Your task to perform on an android device: see creations saved in the google photos Image 0: 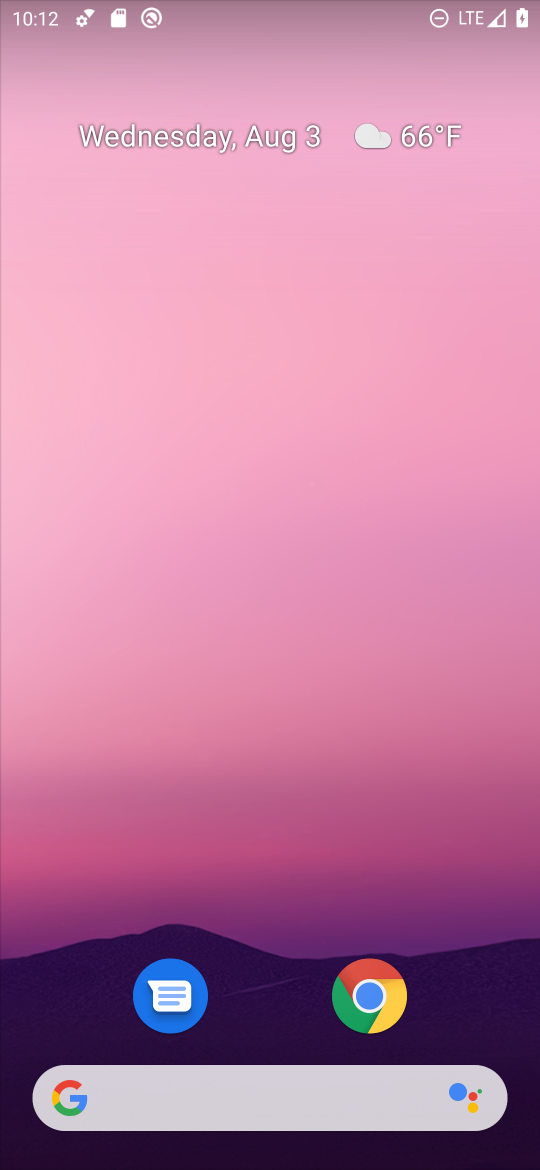
Step 0: drag from (289, 897) to (344, 0)
Your task to perform on an android device: see creations saved in the google photos Image 1: 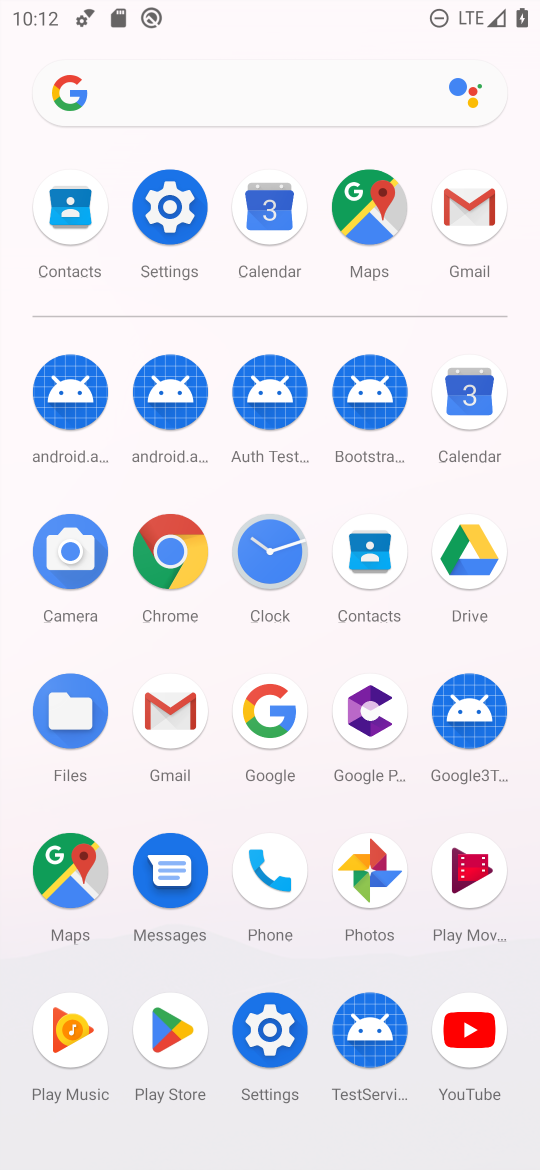
Step 1: click (376, 866)
Your task to perform on an android device: see creations saved in the google photos Image 2: 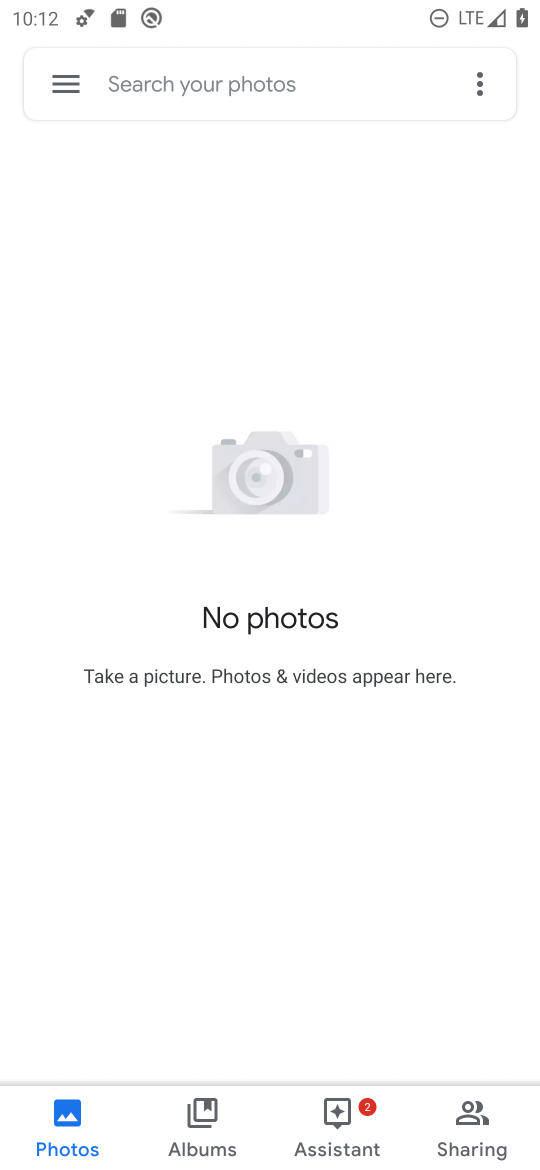
Step 2: click (186, 73)
Your task to perform on an android device: see creations saved in the google photos Image 3: 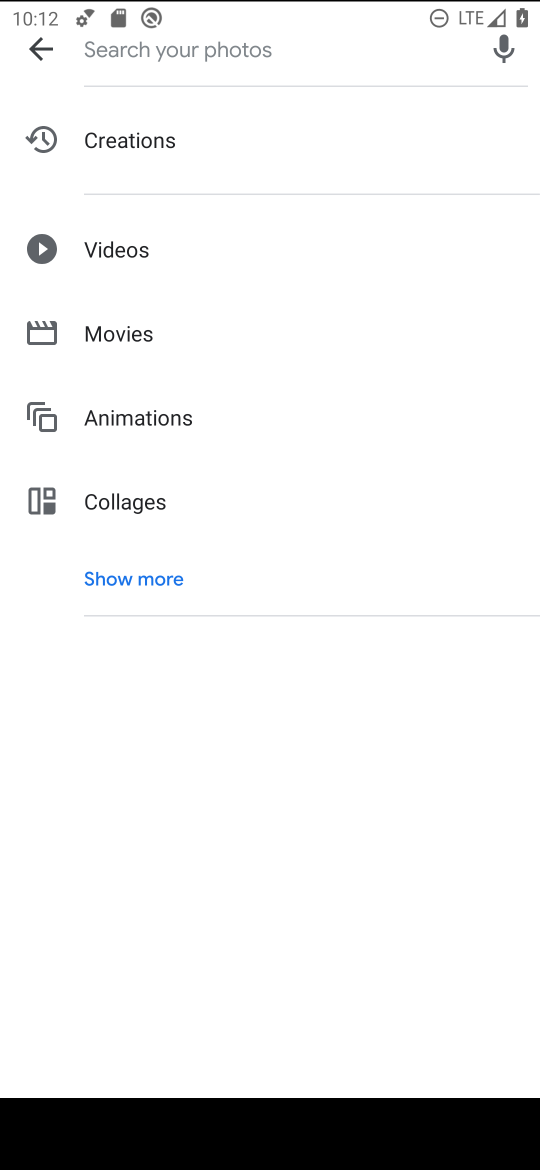
Step 3: click (162, 133)
Your task to perform on an android device: see creations saved in the google photos Image 4: 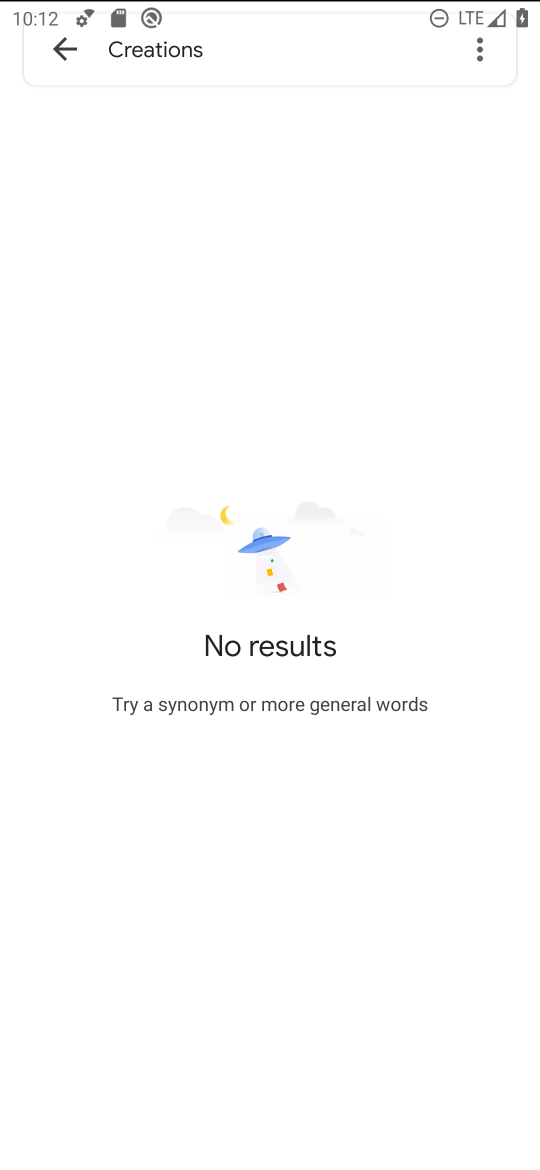
Step 4: task complete